Your task to perform on an android device: check android version Image 0: 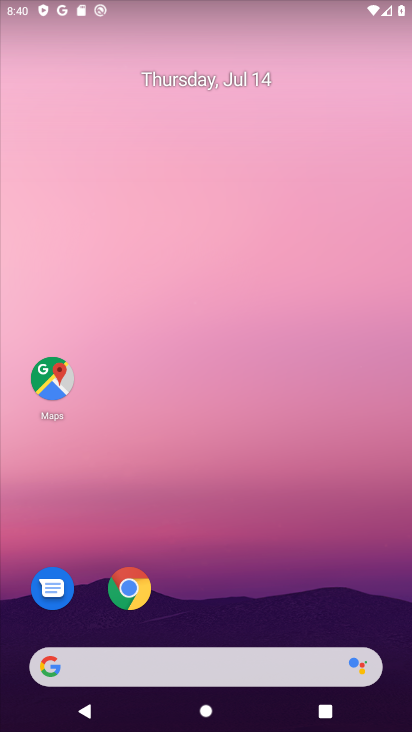
Step 0: drag from (287, 545) to (284, 266)
Your task to perform on an android device: check android version Image 1: 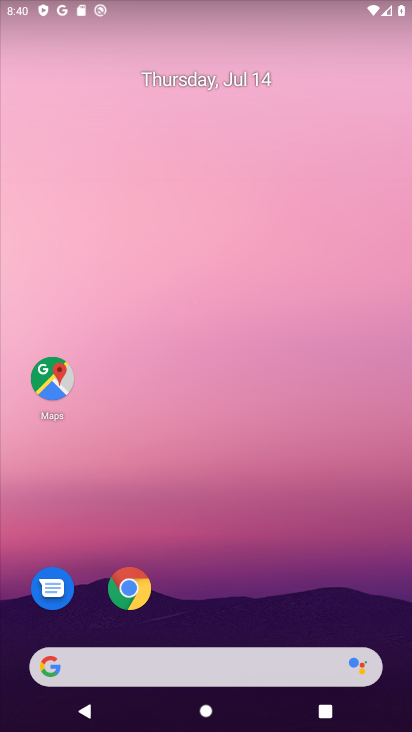
Step 1: drag from (244, 477) to (141, 8)
Your task to perform on an android device: check android version Image 2: 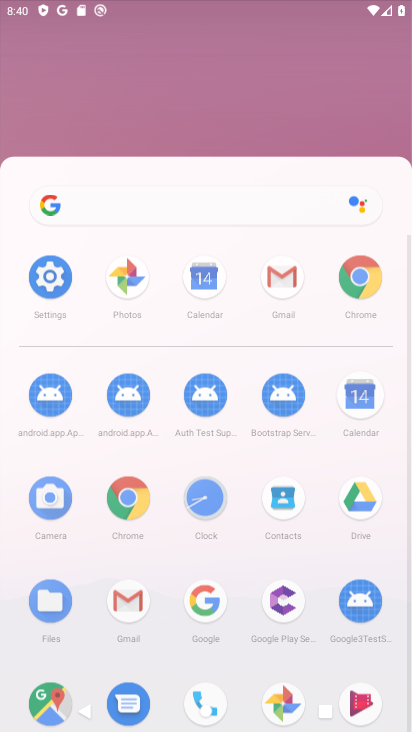
Step 2: drag from (149, 598) to (143, 139)
Your task to perform on an android device: check android version Image 3: 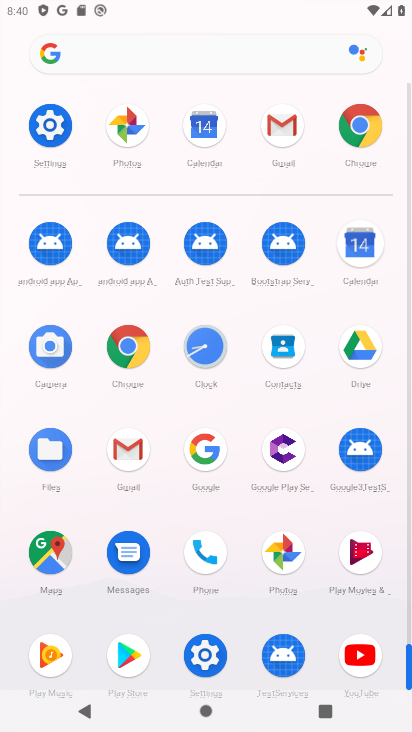
Step 3: click (206, 650)
Your task to perform on an android device: check android version Image 4: 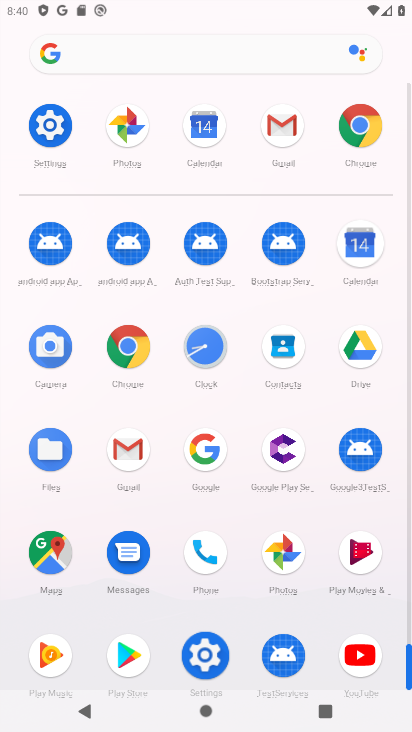
Step 4: click (206, 650)
Your task to perform on an android device: check android version Image 5: 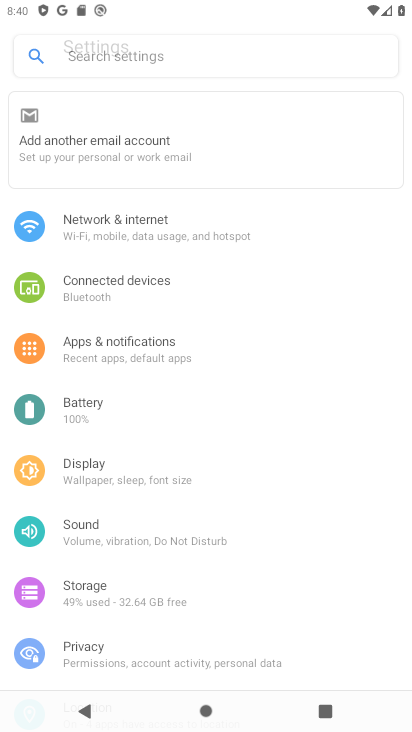
Step 5: click (207, 672)
Your task to perform on an android device: check android version Image 6: 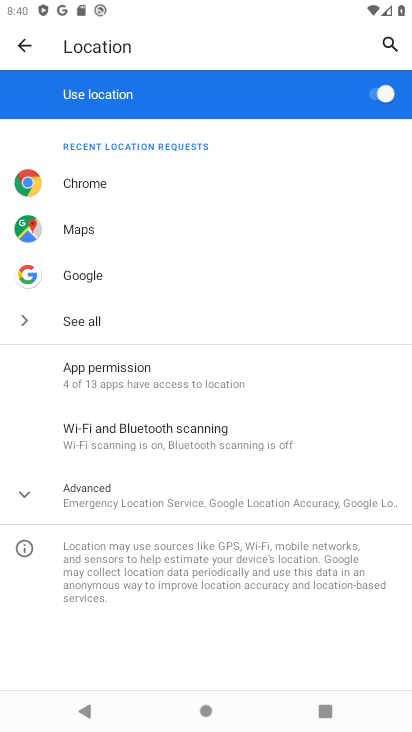
Step 6: click (23, 45)
Your task to perform on an android device: check android version Image 7: 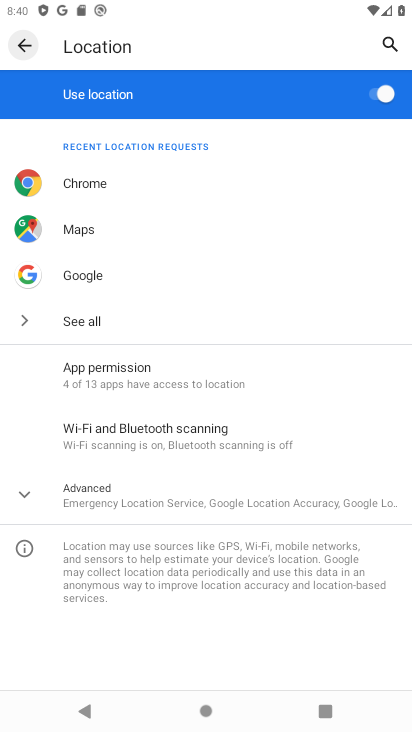
Step 7: click (23, 45)
Your task to perform on an android device: check android version Image 8: 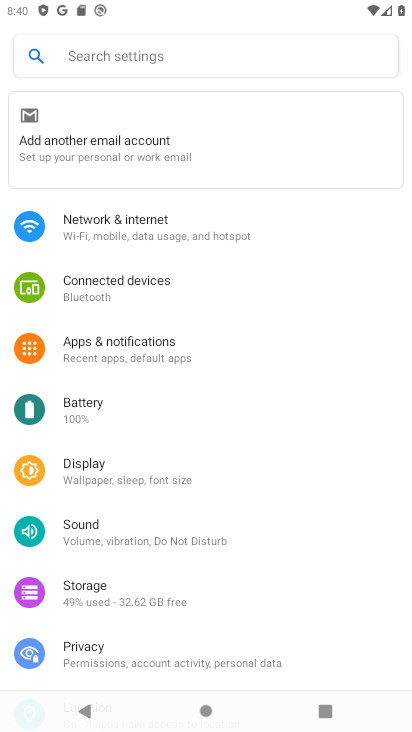
Step 8: drag from (147, 558) to (140, 309)
Your task to perform on an android device: check android version Image 9: 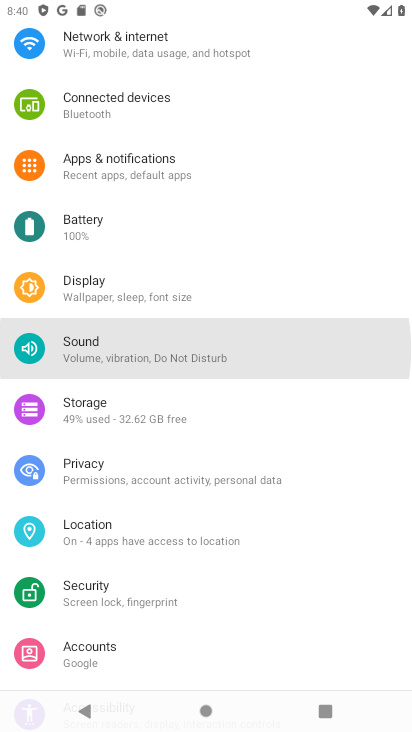
Step 9: drag from (104, 600) to (129, 341)
Your task to perform on an android device: check android version Image 10: 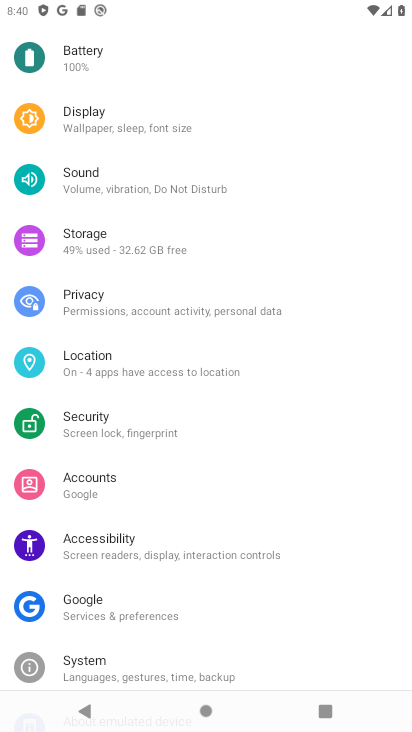
Step 10: drag from (121, 616) to (211, 208)
Your task to perform on an android device: check android version Image 11: 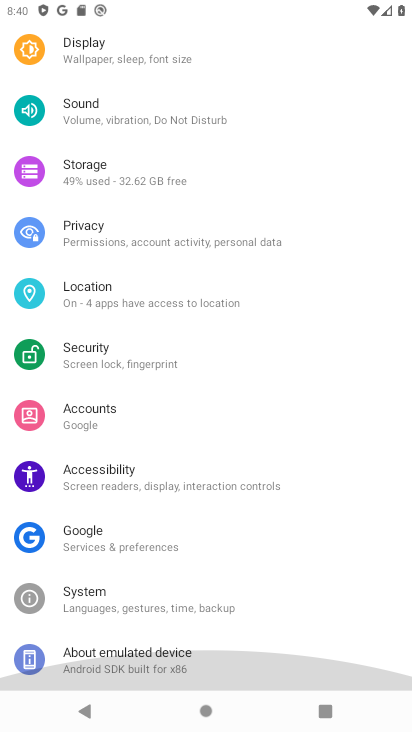
Step 11: drag from (220, 626) to (202, 108)
Your task to perform on an android device: check android version Image 12: 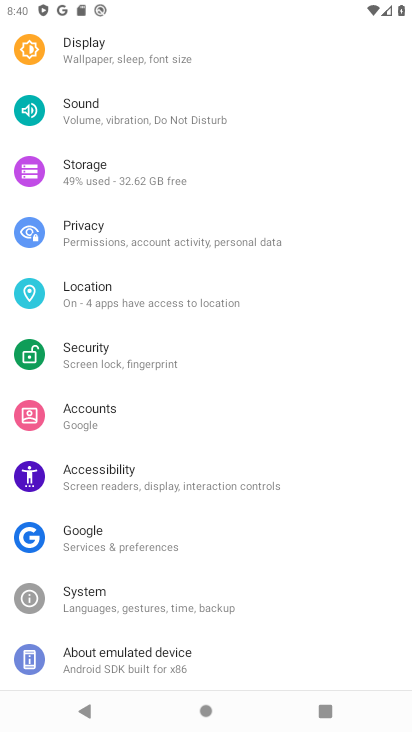
Step 12: click (133, 664)
Your task to perform on an android device: check android version Image 13: 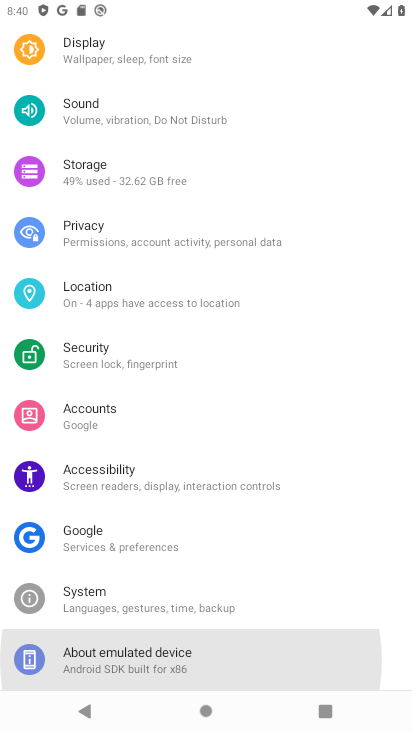
Step 13: click (132, 662)
Your task to perform on an android device: check android version Image 14: 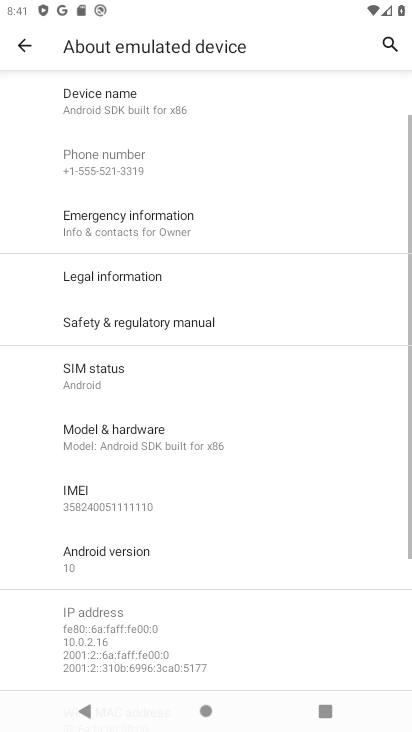
Step 14: task complete